Your task to perform on an android device: toggle improve location accuracy Image 0: 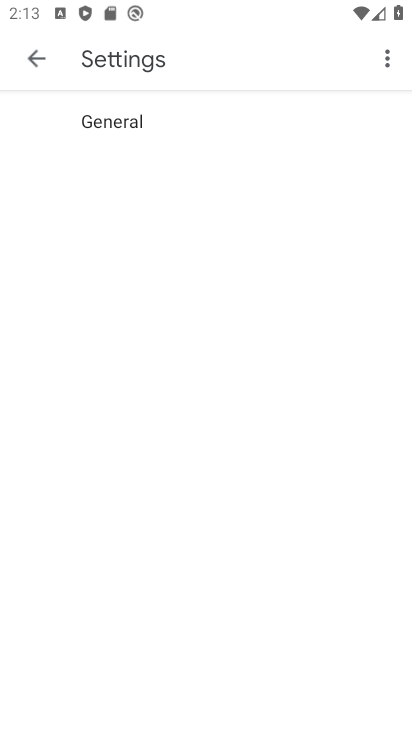
Step 0: press home button
Your task to perform on an android device: toggle improve location accuracy Image 1: 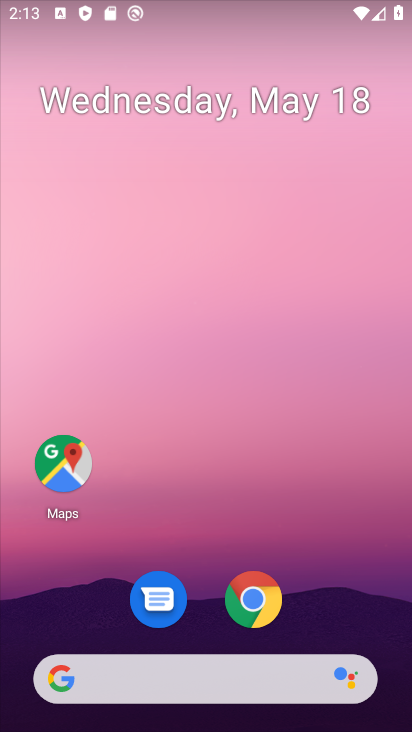
Step 1: drag from (191, 637) to (299, 190)
Your task to perform on an android device: toggle improve location accuracy Image 2: 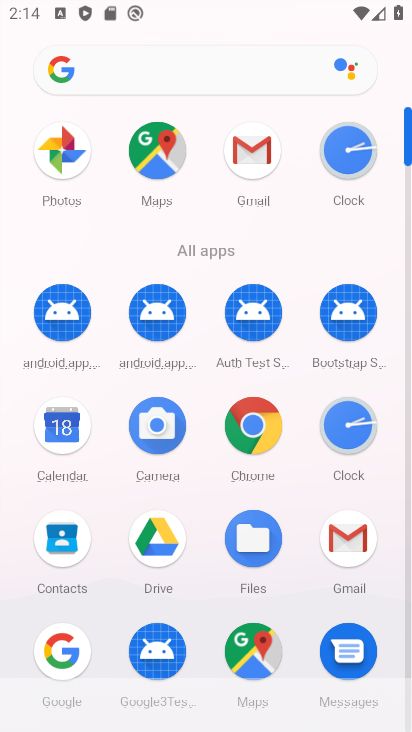
Step 2: drag from (139, 568) to (195, 238)
Your task to perform on an android device: toggle improve location accuracy Image 3: 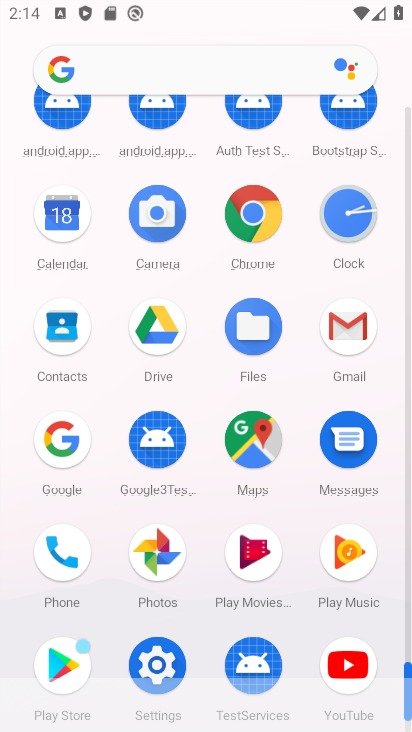
Step 3: click (147, 666)
Your task to perform on an android device: toggle improve location accuracy Image 4: 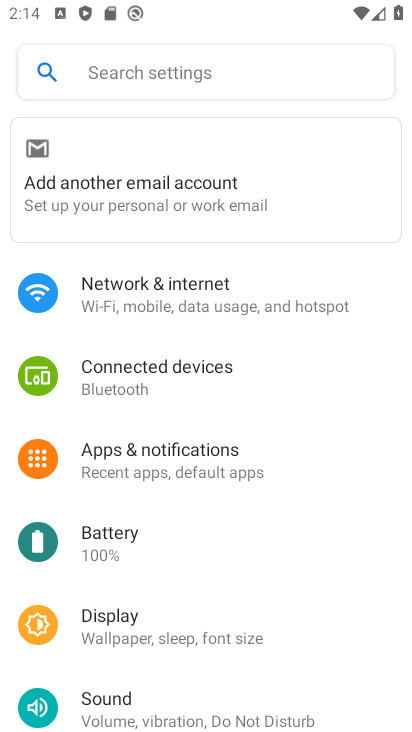
Step 4: drag from (164, 705) to (267, 264)
Your task to perform on an android device: toggle improve location accuracy Image 5: 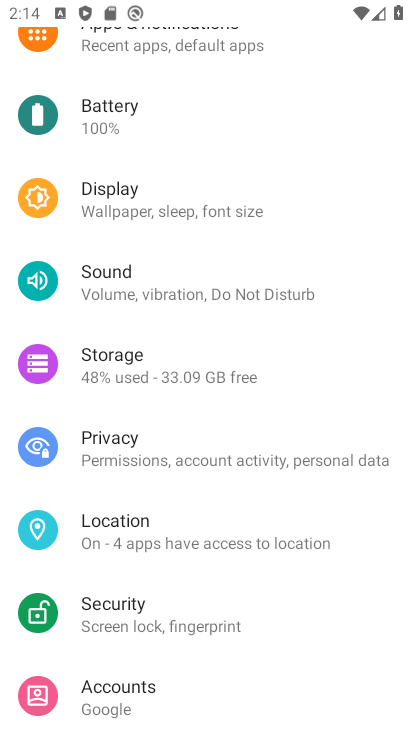
Step 5: drag from (218, 690) to (256, 354)
Your task to perform on an android device: toggle improve location accuracy Image 6: 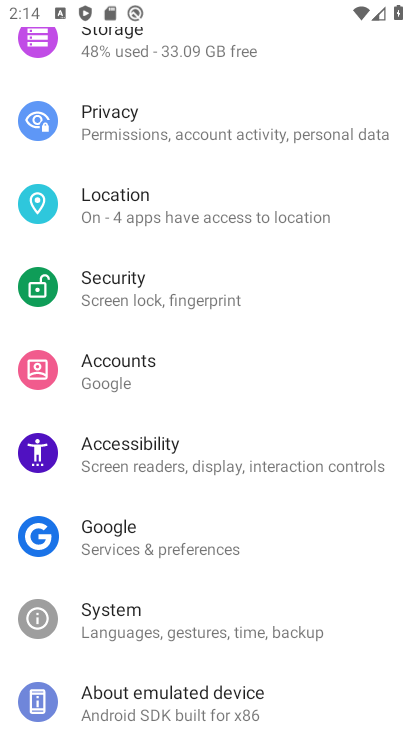
Step 6: click (178, 485)
Your task to perform on an android device: toggle improve location accuracy Image 7: 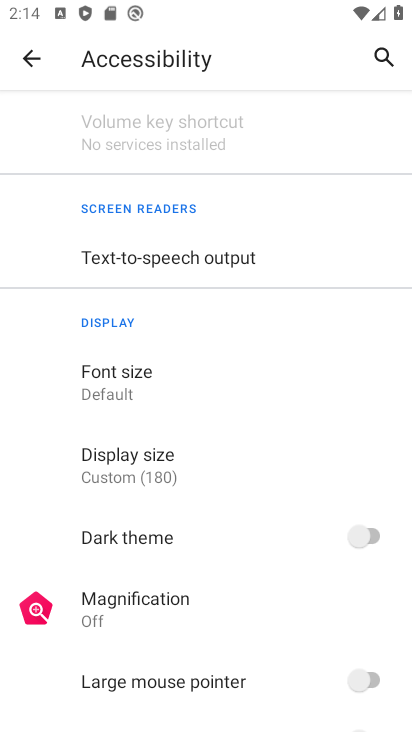
Step 7: click (41, 59)
Your task to perform on an android device: toggle improve location accuracy Image 8: 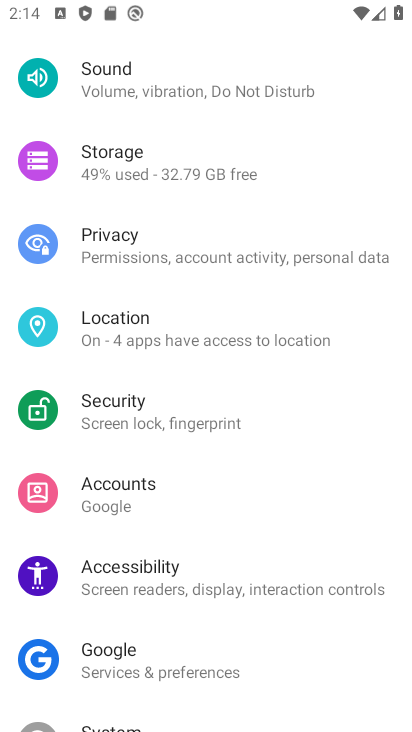
Step 8: drag from (157, 684) to (218, 370)
Your task to perform on an android device: toggle improve location accuracy Image 9: 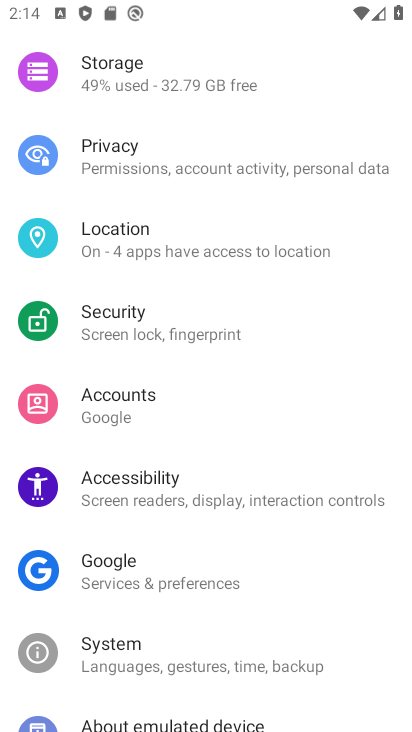
Step 9: click (148, 246)
Your task to perform on an android device: toggle improve location accuracy Image 10: 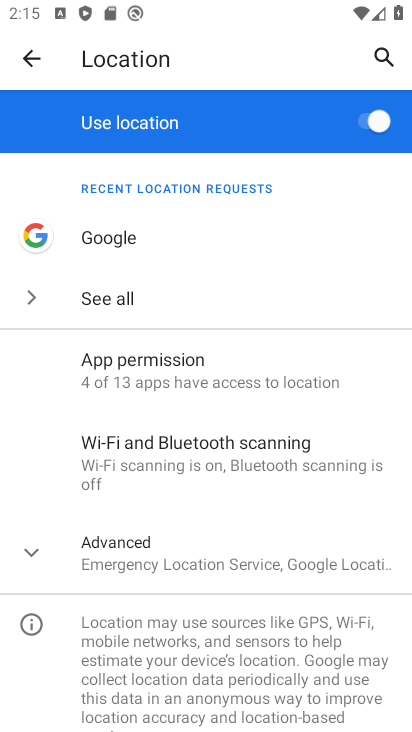
Step 10: click (138, 552)
Your task to perform on an android device: toggle improve location accuracy Image 11: 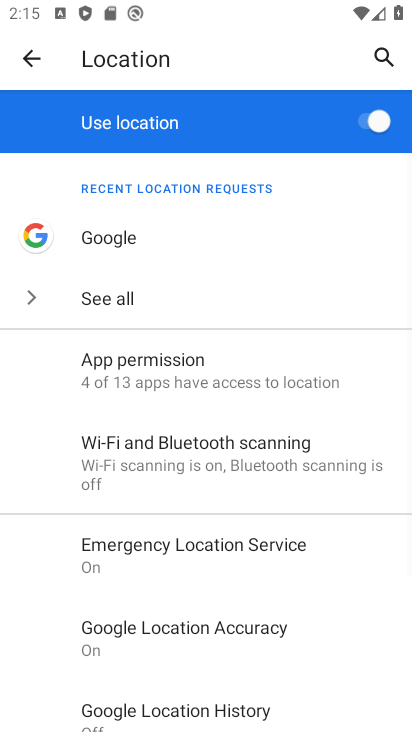
Step 11: drag from (230, 688) to (230, 429)
Your task to perform on an android device: toggle improve location accuracy Image 12: 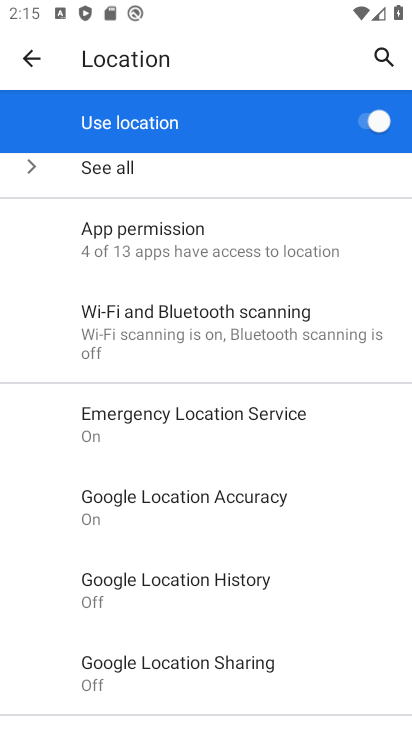
Step 12: click (214, 511)
Your task to perform on an android device: toggle improve location accuracy Image 13: 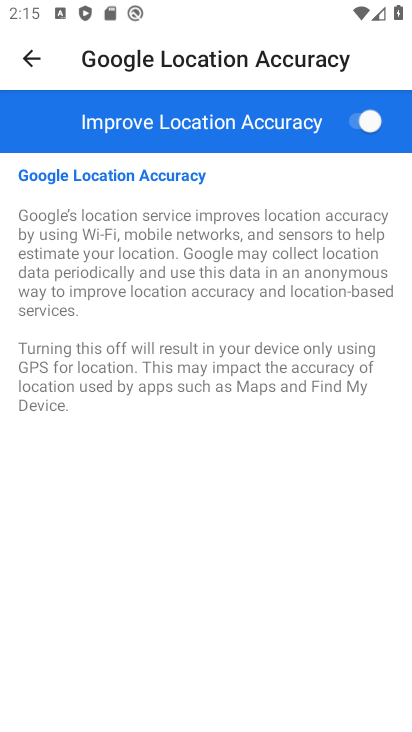
Step 13: click (357, 122)
Your task to perform on an android device: toggle improve location accuracy Image 14: 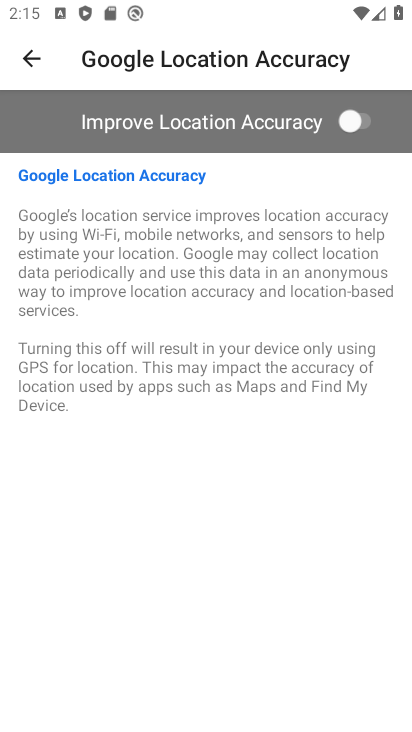
Step 14: task complete